Your task to perform on an android device: Search for pizza restaurants on Maps Image 0: 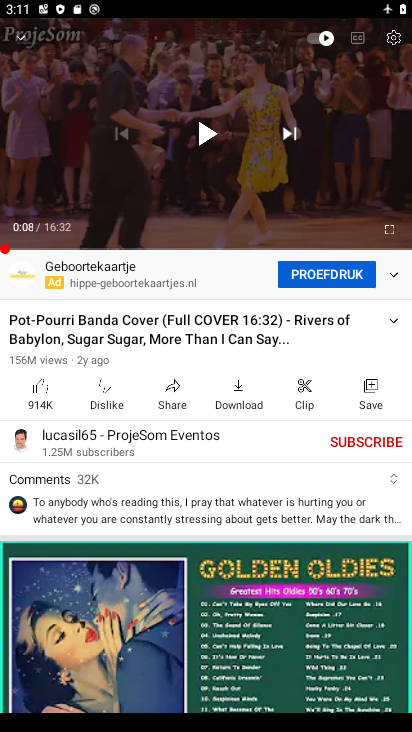
Step 0: press home button
Your task to perform on an android device: Search for pizza restaurants on Maps Image 1: 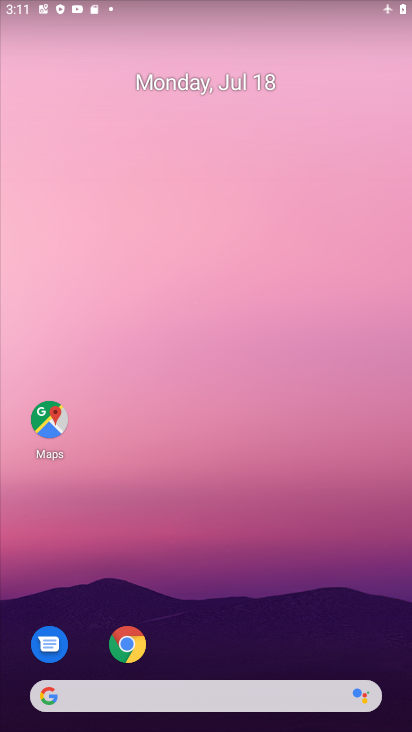
Step 1: click (46, 424)
Your task to perform on an android device: Search for pizza restaurants on Maps Image 2: 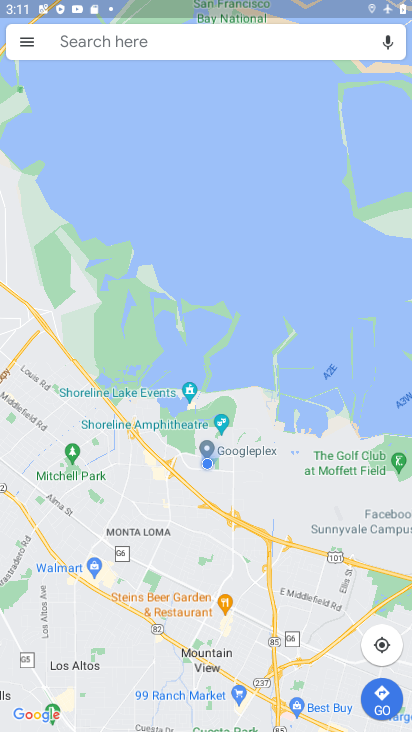
Step 2: click (100, 39)
Your task to perform on an android device: Search for pizza restaurants on Maps Image 3: 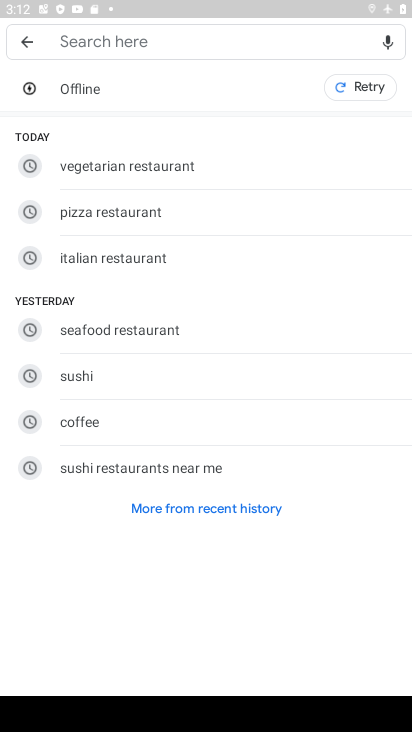
Step 3: type "Pizza restaurants"
Your task to perform on an android device: Search for pizza restaurants on Maps Image 4: 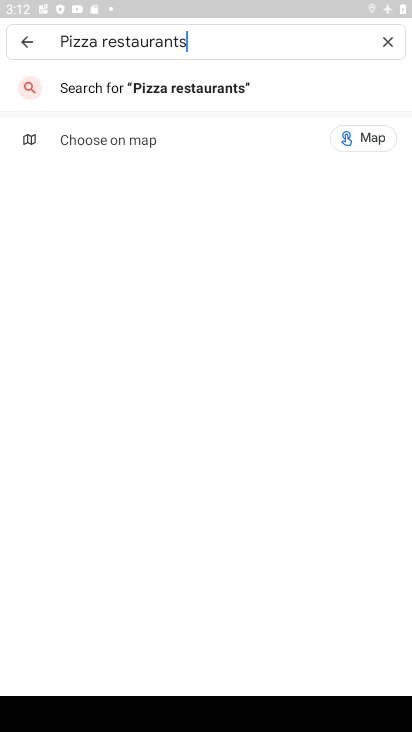
Step 4: click (173, 87)
Your task to perform on an android device: Search for pizza restaurants on Maps Image 5: 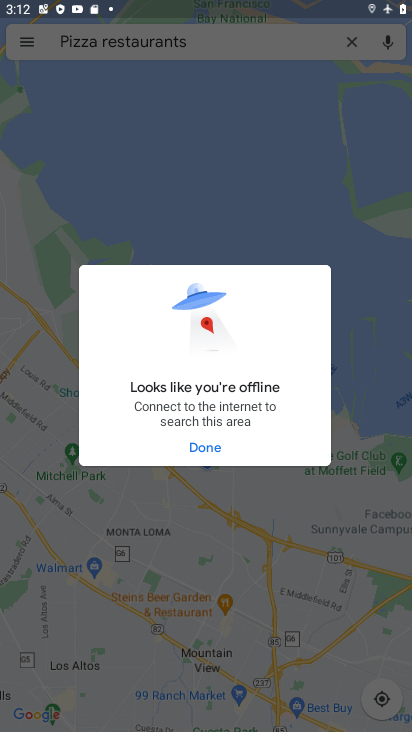
Step 5: click (210, 446)
Your task to perform on an android device: Search for pizza restaurants on Maps Image 6: 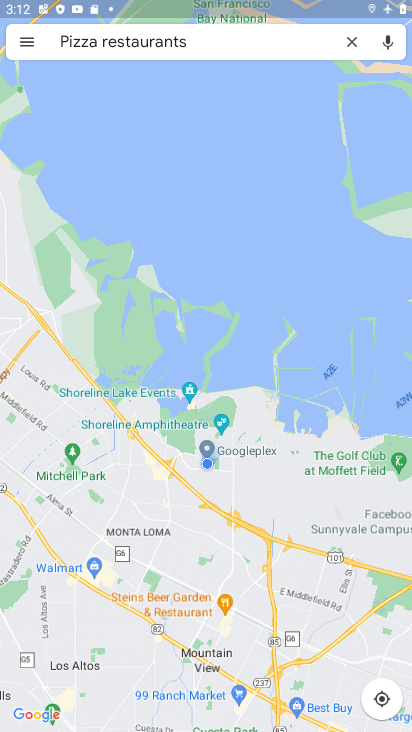
Step 6: task complete